Your task to perform on an android device: open a new tab in the chrome app Image 0: 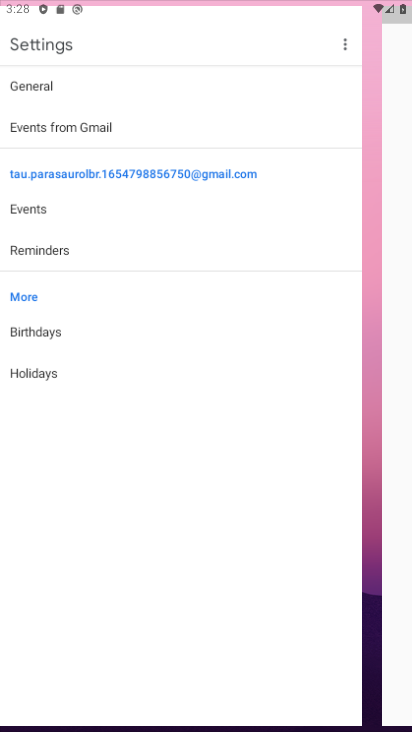
Step 0: press home button
Your task to perform on an android device: open a new tab in the chrome app Image 1: 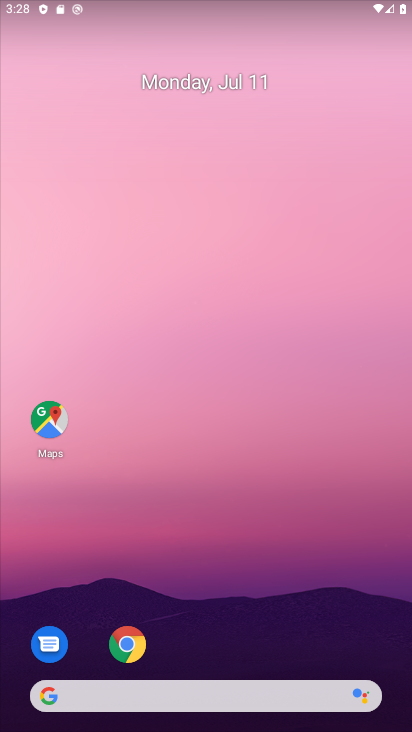
Step 1: click (124, 648)
Your task to perform on an android device: open a new tab in the chrome app Image 2: 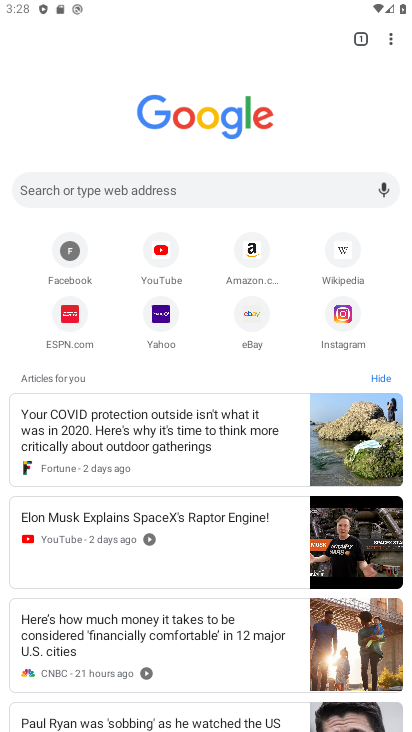
Step 2: click (391, 43)
Your task to perform on an android device: open a new tab in the chrome app Image 3: 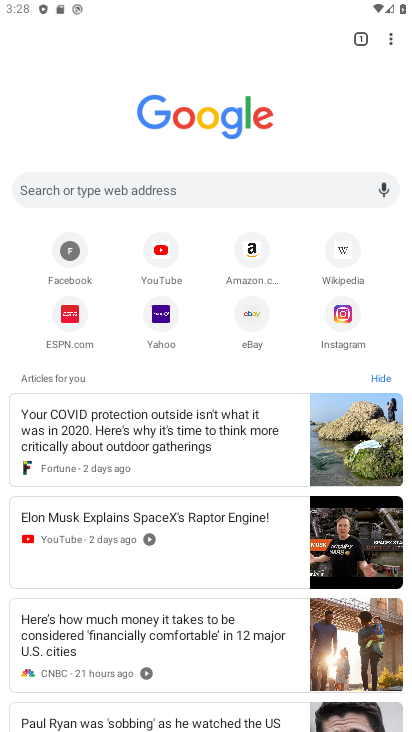
Step 3: click (392, 39)
Your task to perform on an android device: open a new tab in the chrome app Image 4: 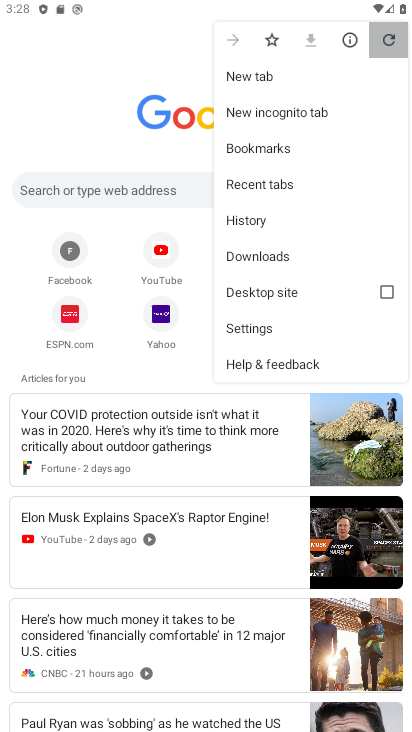
Step 4: task complete